Your task to perform on an android device: open wifi settings Image 0: 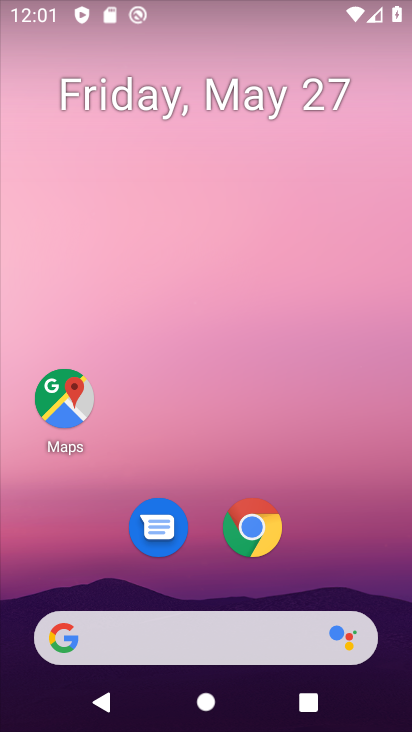
Step 0: drag from (276, 676) to (206, 221)
Your task to perform on an android device: open wifi settings Image 1: 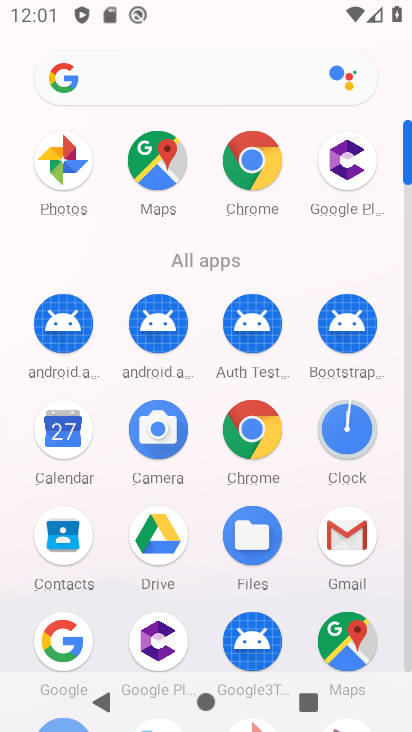
Step 1: drag from (267, 553) to (273, 192)
Your task to perform on an android device: open wifi settings Image 2: 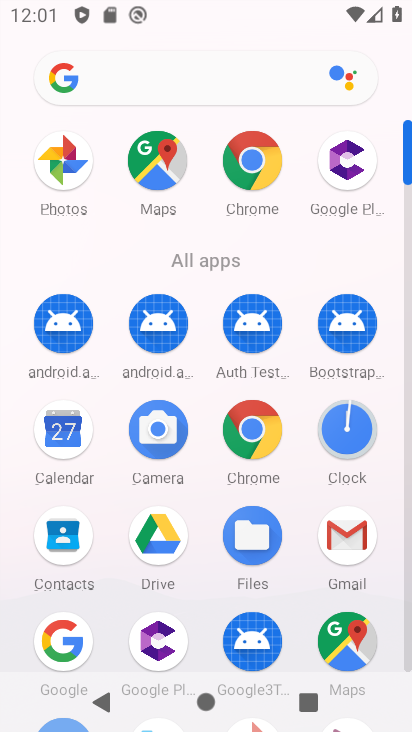
Step 2: drag from (207, 610) to (205, 197)
Your task to perform on an android device: open wifi settings Image 3: 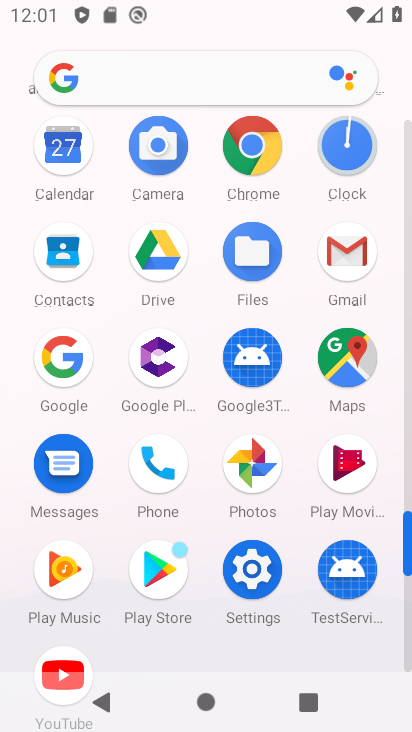
Step 3: click (252, 577)
Your task to perform on an android device: open wifi settings Image 4: 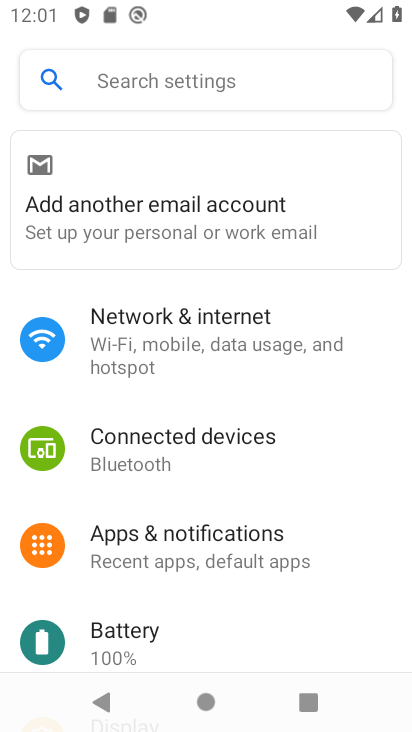
Step 4: click (235, 325)
Your task to perform on an android device: open wifi settings Image 5: 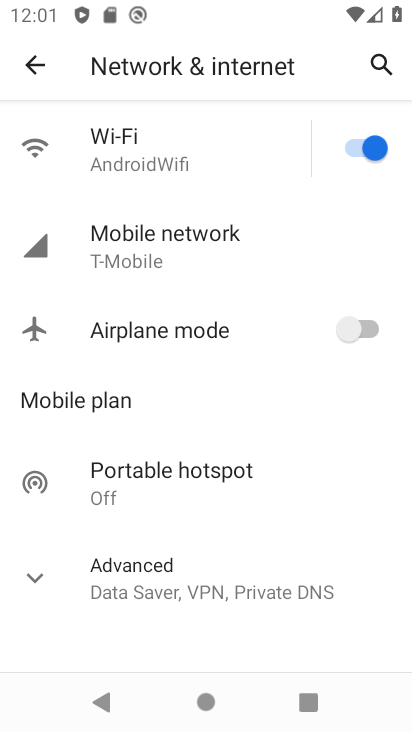
Step 5: click (173, 152)
Your task to perform on an android device: open wifi settings Image 6: 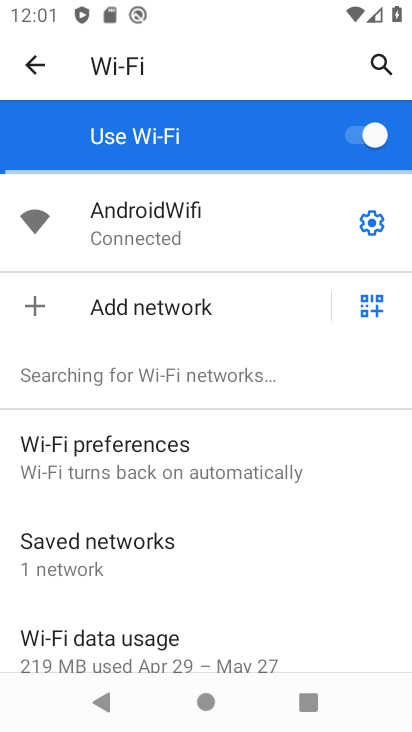
Step 6: click (378, 226)
Your task to perform on an android device: open wifi settings Image 7: 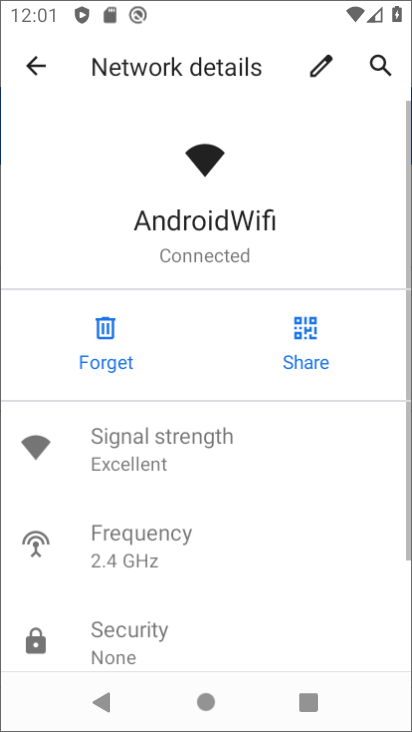
Step 7: task complete